Your task to perform on an android device: Is it going to rain tomorrow? Image 0: 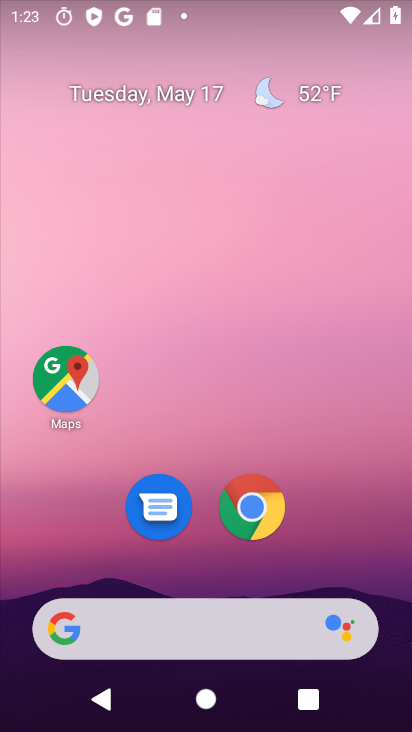
Step 0: drag from (185, 550) to (227, 101)
Your task to perform on an android device: Is it going to rain tomorrow? Image 1: 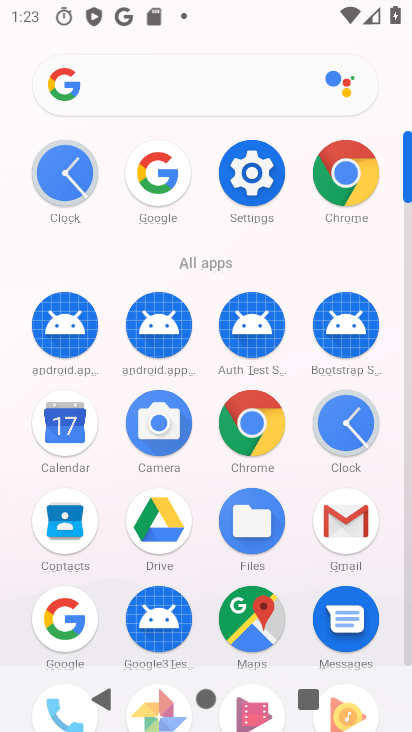
Step 1: click (70, 611)
Your task to perform on an android device: Is it going to rain tomorrow? Image 2: 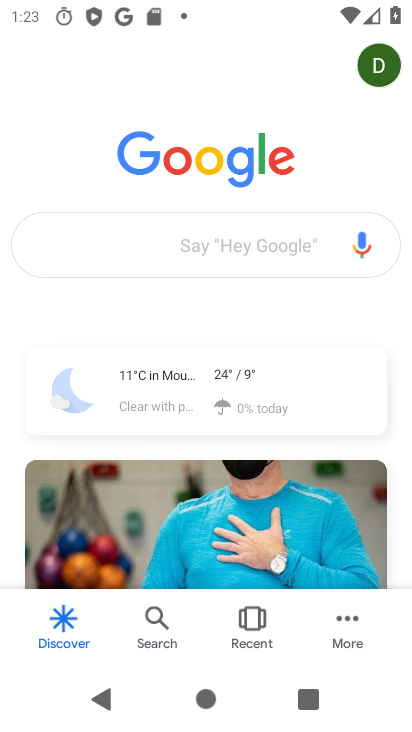
Step 2: click (146, 249)
Your task to perform on an android device: Is it going to rain tomorrow? Image 3: 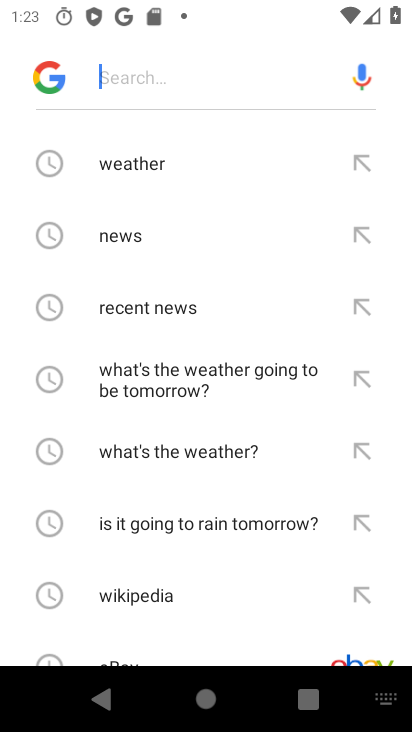
Step 3: type "is it going to rain tomorrow"
Your task to perform on an android device: Is it going to rain tomorrow? Image 4: 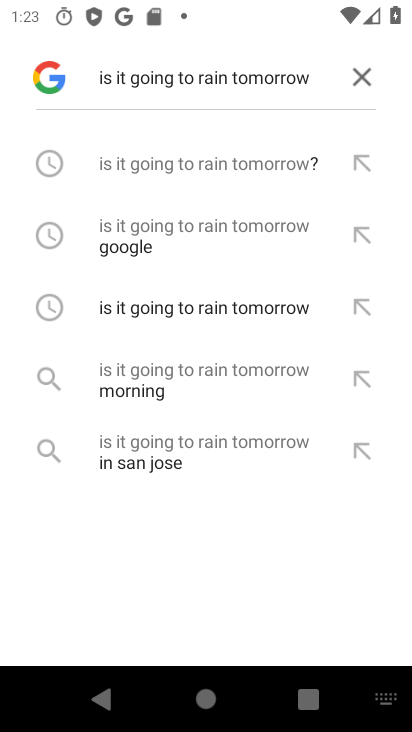
Step 4: click (172, 160)
Your task to perform on an android device: Is it going to rain tomorrow? Image 5: 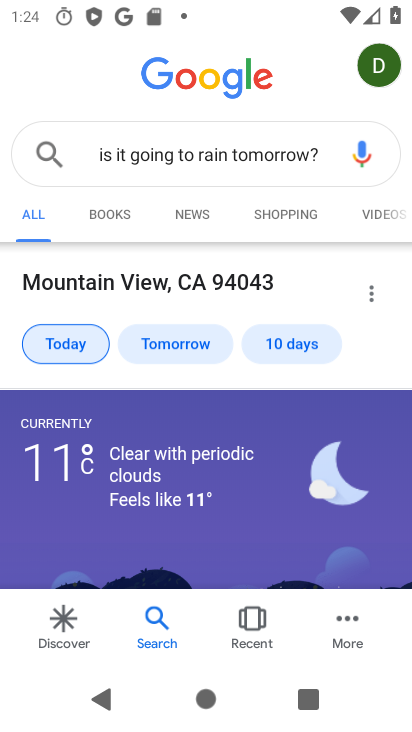
Step 5: task complete